Your task to perform on an android device: open app "Expedia: Hotels, Flights & Car" (install if not already installed) and enter user name: "crusader@outlook.com" and password: "Toryize" Image 0: 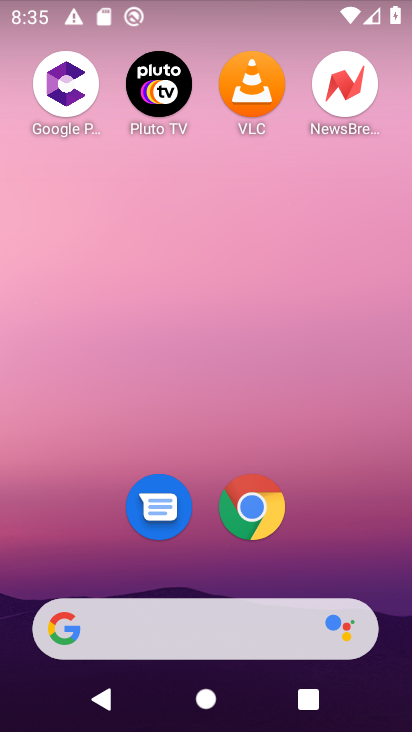
Step 0: drag from (159, 635) to (220, 146)
Your task to perform on an android device: open app "Expedia: Hotels, Flights & Car" (install if not already installed) and enter user name: "crusader@outlook.com" and password: "Toryize" Image 1: 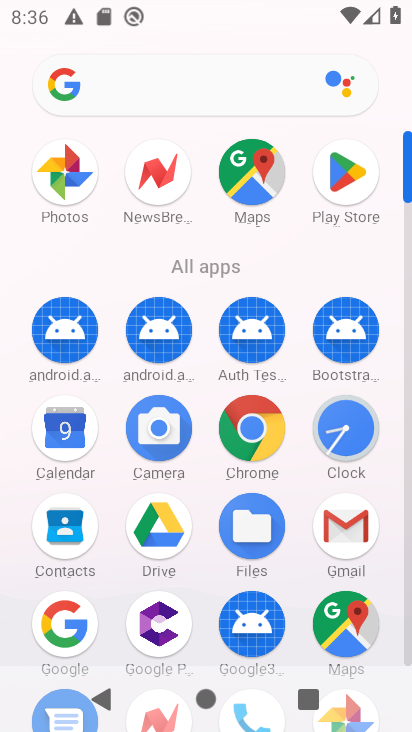
Step 1: click (349, 175)
Your task to perform on an android device: open app "Expedia: Hotels, Flights & Car" (install if not already installed) and enter user name: "crusader@outlook.com" and password: "Toryize" Image 2: 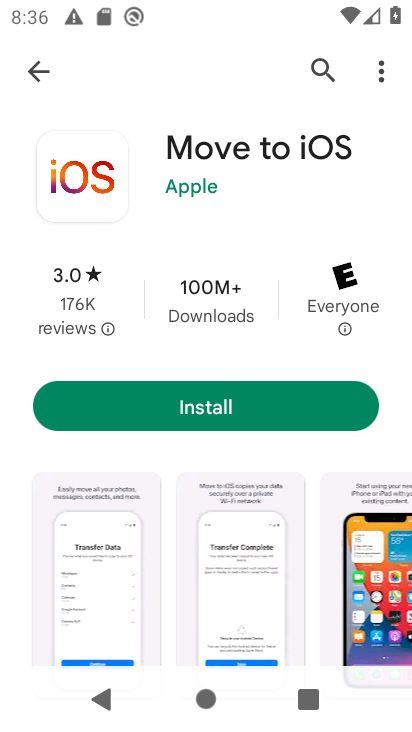
Step 2: click (321, 71)
Your task to perform on an android device: open app "Expedia: Hotels, Flights & Car" (install if not already installed) and enter user name: "crusader@outlook.com" and password: "Toryize" Image 3: 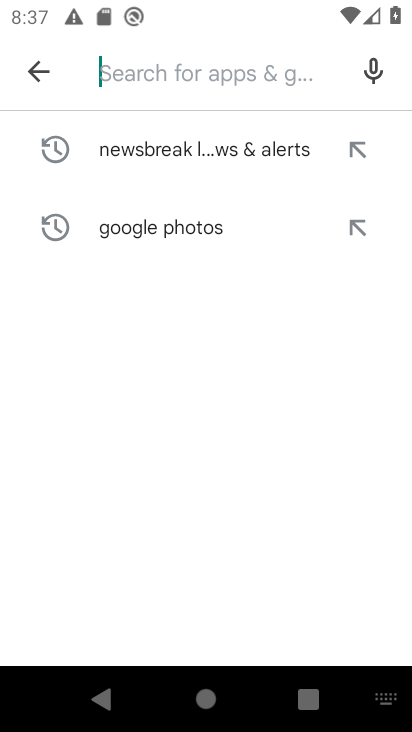
Step 3: type "Expedia: Hotels, Flights & Car"
Your task to perform on an android device: open app "Expedia: Hotels, Flights & Car" (install if not already installed) and enter user name: "crusader@outlook.com" and password: "Toryize" Image 4: 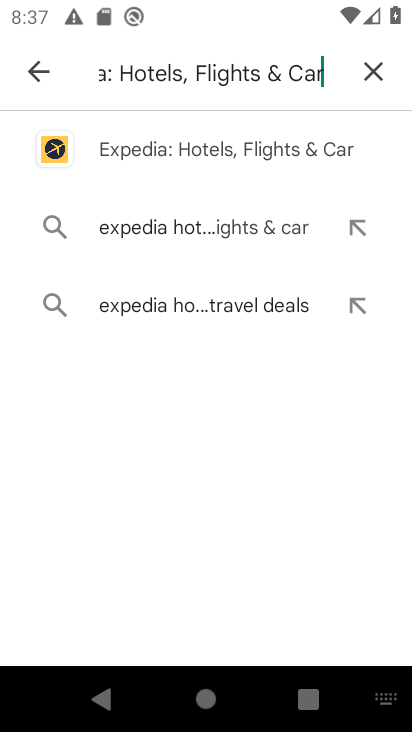
Step 4: click (235, 155)
Your task to perform on an android device: open app "Expedia: Hotels, Flights & Car" (install if not already installed) and enter user name: "crusader@outlook.com" and password: "Toryize" Image 5: 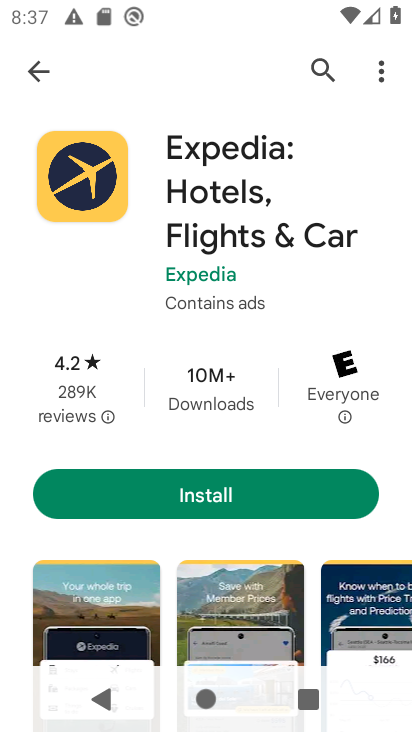
Step 5: click (201, 484)
Your task to perform on an android device: open app "Expedia: Hotels, Flights & Car" (install if not already installed) and enter user name: "crusader@outlook.com" and password: "Toryize" Image 6: 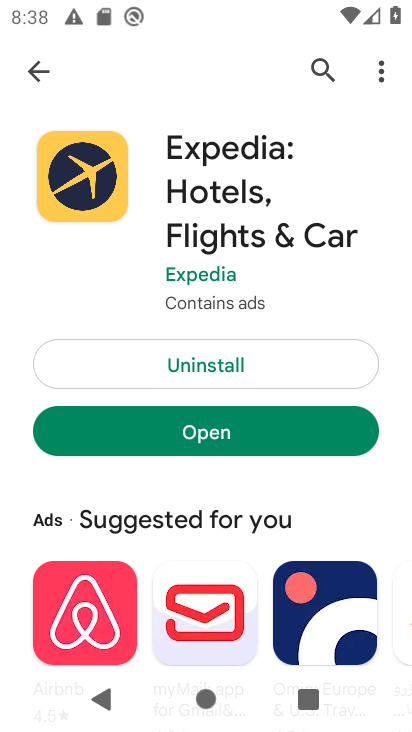
Step 6: click (267, 440)
Your task to perform on an android device: open app "Expedia: Hotels, Flights & Car" (install if not already installed) and enter user name: "crusader@outlook.com" and password: "Toryize" Image 7: 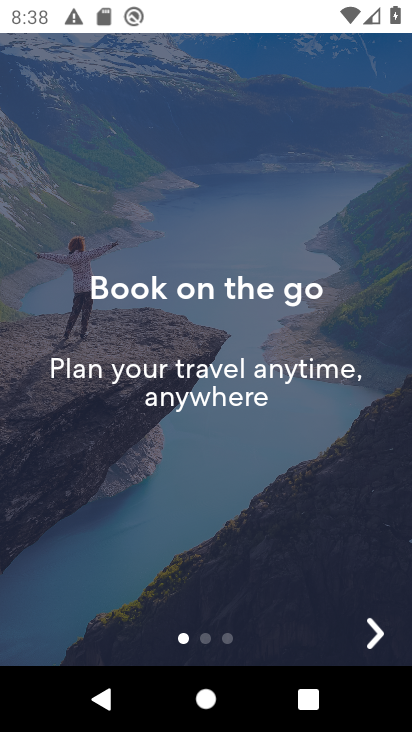
Step 7: click (372, 636)
Your task to perform on an android device: open app "Expedia: Hotels, Flights & Car" (install if not already installed) and enter user name: "crusader@outlook.com" and password: "Toryize" Image 8: 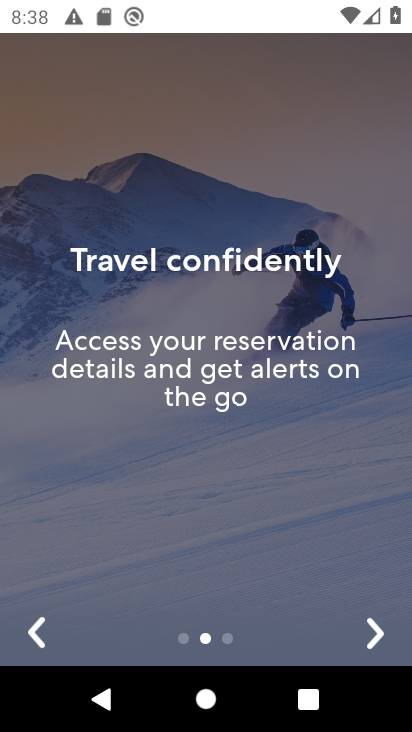
Step 8: click (372, 636)
Your task to perform on an android device: open app "Expedia: Hotels, Flights & Car" (install if not already installed) and enter user name: "crusader@outlook.com" and password: "Toryize" Image 9: 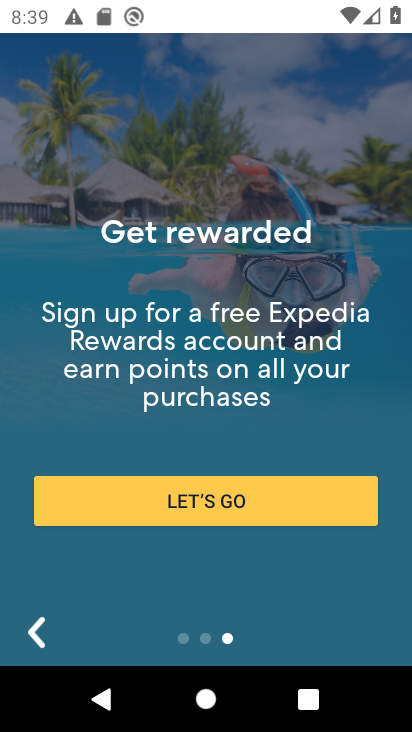
Step 9: click (213, 504)
Your task to perform on an android device: open app "Expedia: Hotels, Flights & Car" (install if not already installed) and enter user name: "crusader@outlook.com" and password: "Toryize" Image 10: 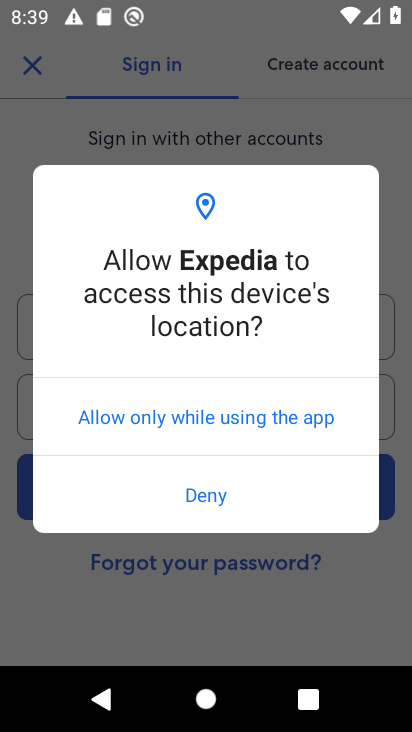
Step 10: click (238, 407)
Your task to perform on an android device: open app "Expedia: Hotels, Flights & Car" (install if not already installed) and enter user name: "crusader@outlook.com" and password: "Toryize" Image 11: 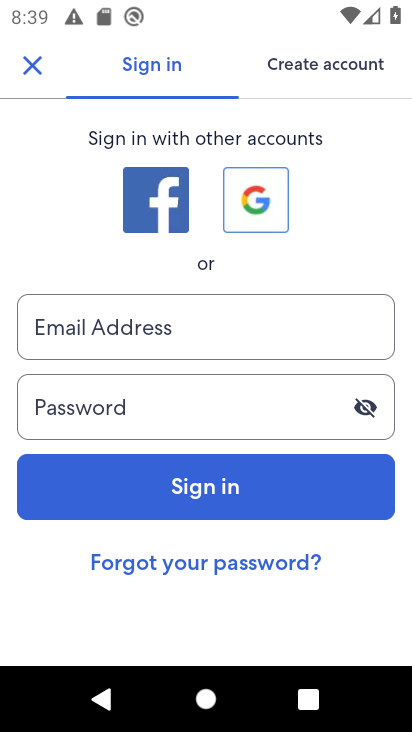
Step 11: click (136, 332)
Your task to perform on an android device: open app "Expedia: Hotels, Flights & Car" (install if not already installed) and enter user name: "crusader@outlook.com" and password: "Toryize" Image 12: 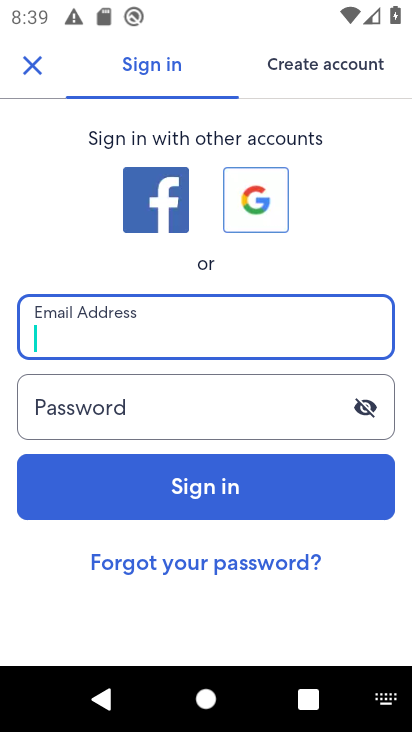
Step 12: type "crusader@outlook.com"
Your task to perform on an android device: open app "Expedia: Hotels, Flights & Car" (install if not already installed) and enter user name: "crusader@outlook.com" and password: "Toryize" Image 13: 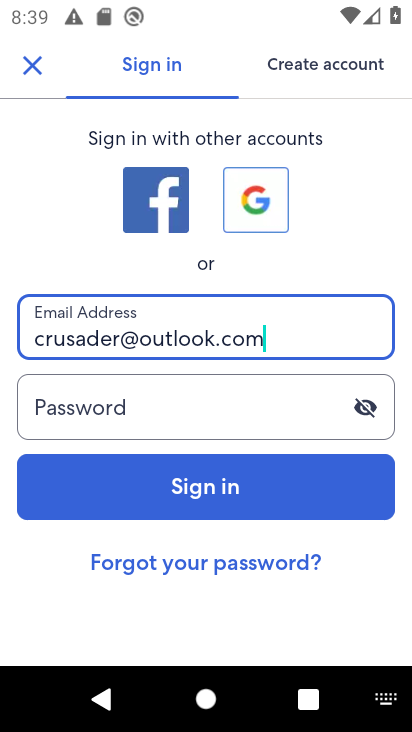
Step 13: type ""
Your task to perform on an android device: open app "Expedia: Hotels, Flights & Car" (install if not already installed) and enter user name: "crusader@outlook.com" and password: "Toryize" Image 14: 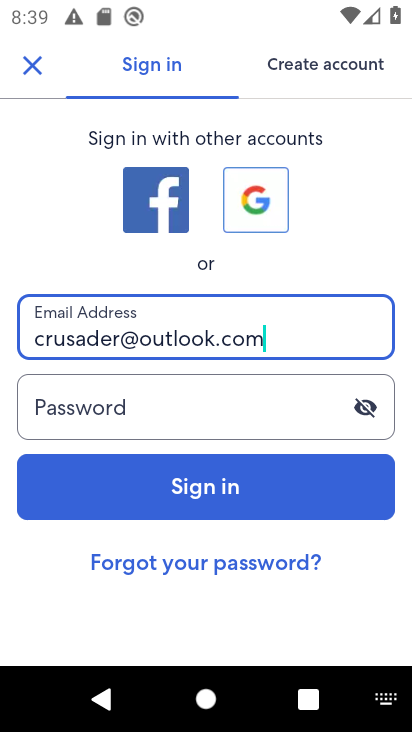
Step 14: click (165, 418)
Your task to perform on an android device: open app "Expedia: Hotels, Flights & Car" (install if not already installed) and enter user name: "crusader@outlook.com" and password: "Toryize" Image 15: 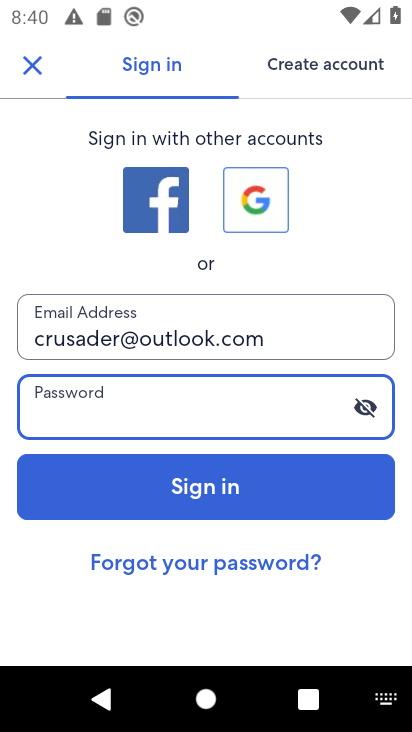
Step 15: type "Toryize"
Your task to perform on an android device: open app "Expedia: Hotels, Flights & Car" (install if not already installed) and enter user name: "crusader@outlook.com" and password: "Toryize" Image 16: 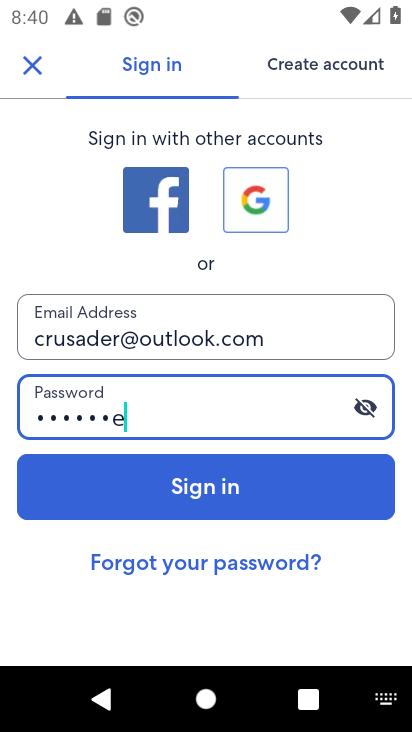
Step 16: type ""
Your task to perform on an android device: open app "Expedia: Hotels, Flights & Car" (install if not already installed) and enter user name: "crusader@outlook.com" and password: "Toryize" Image 17: 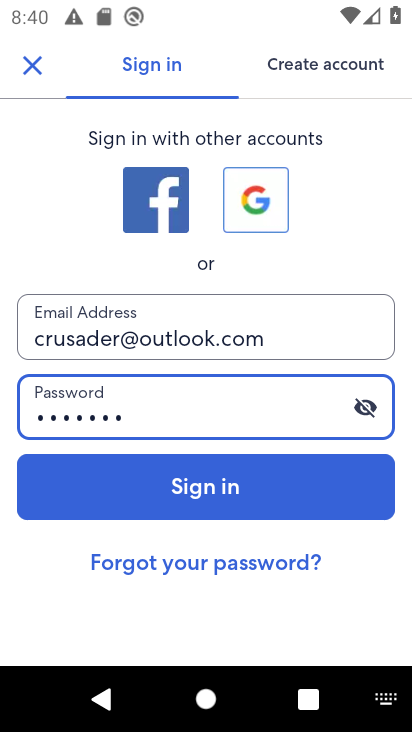
Step 17: task complete